Your task to perform on an android device: Search for logitech g933 on ebay.com, select the first entry, add it to the cart, then select checkout. Image 0: 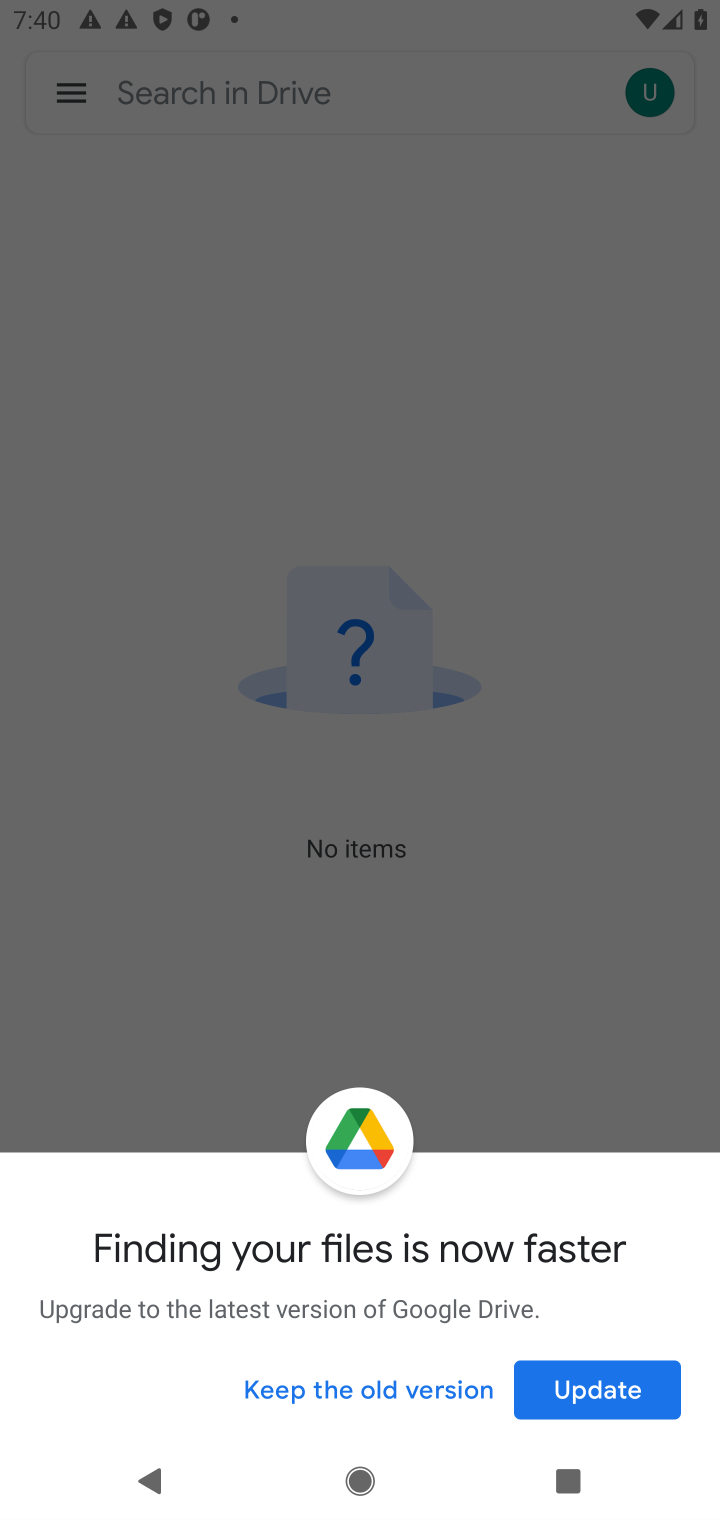
Step 0: press home button
Your task to perform on an android device: Search for logitech g933 on ebay.com, select the first entry, add it to the cart, then select checkout. Image 1: 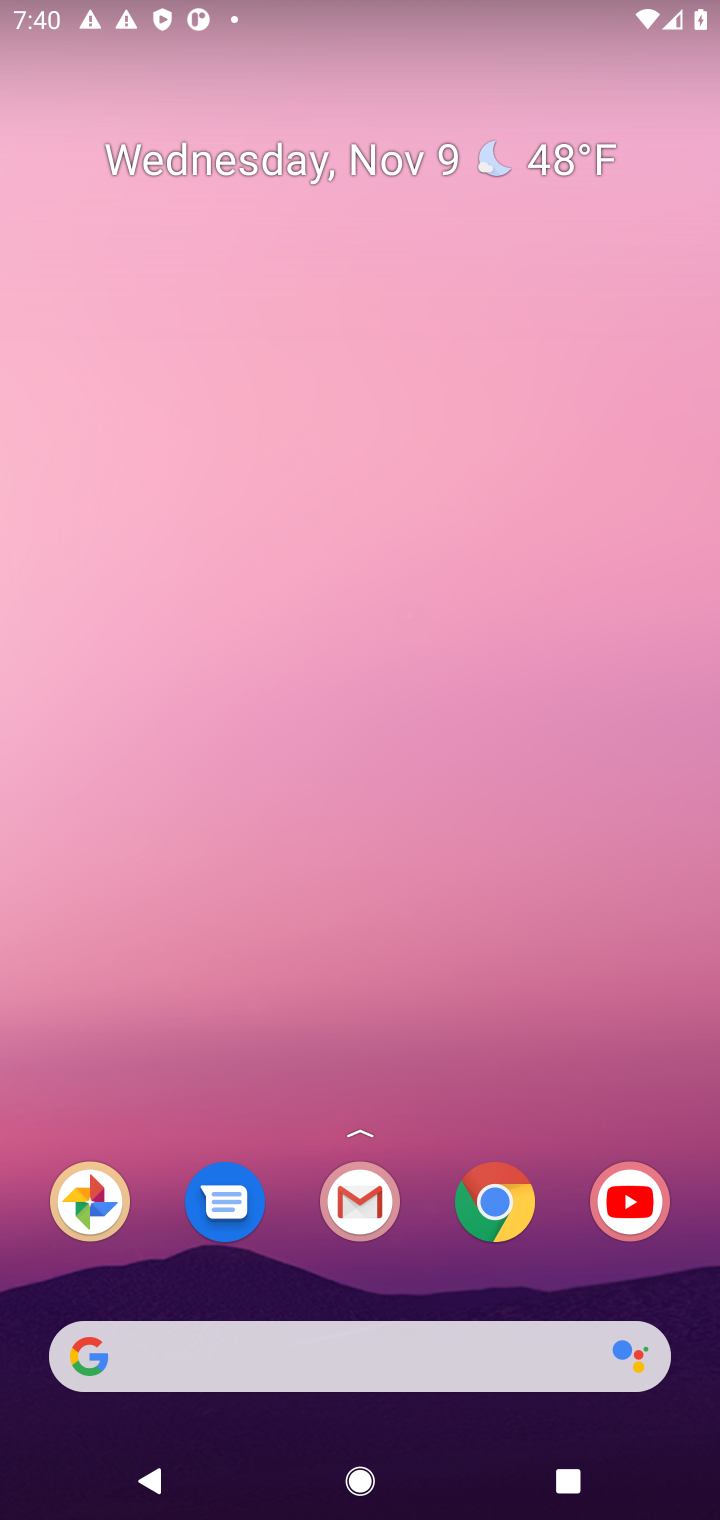
Step 1: drag from (383, 1238) to (636, 160)
Your task to perform on an android device: Search for logitech g933 on ebay.com, select the first entry, add it to the cart, then select checkout. Image 2: 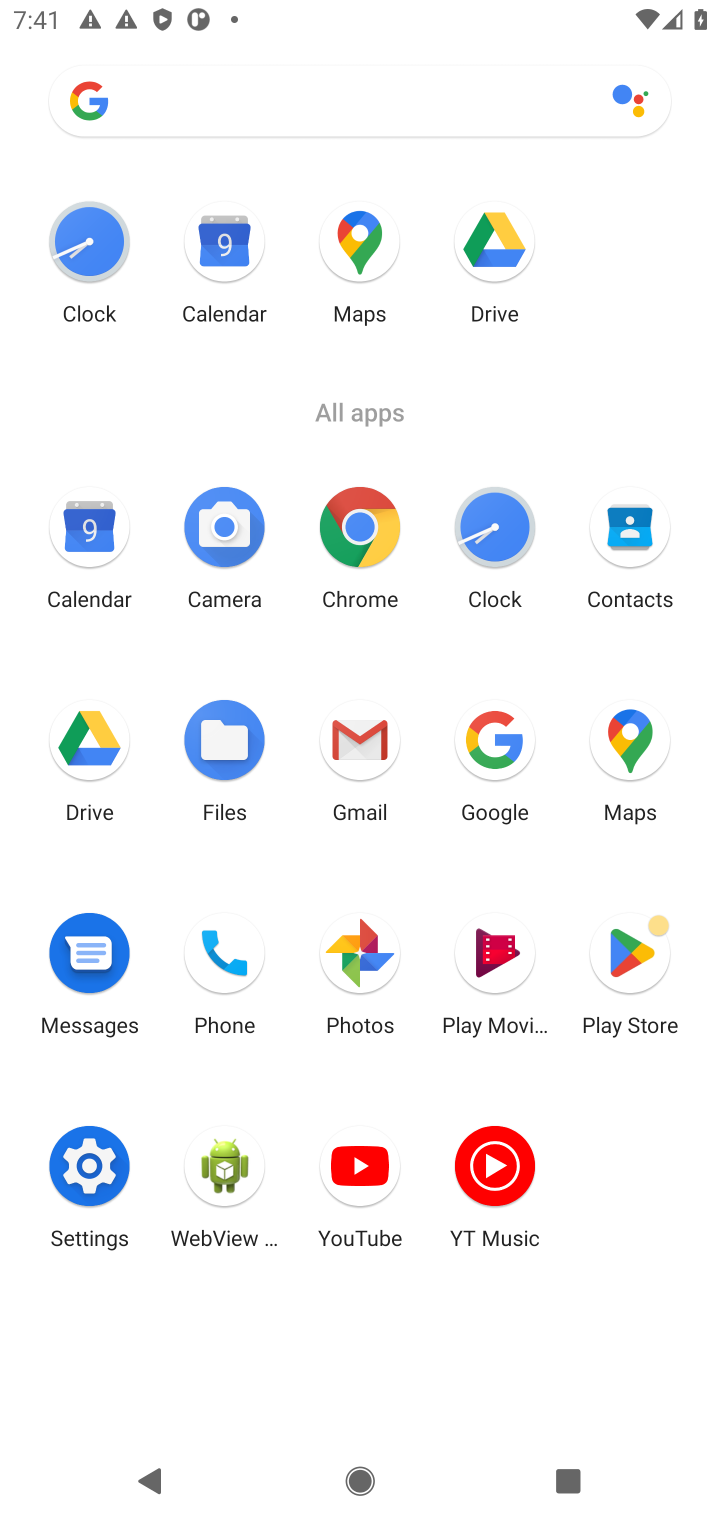
Step 2: drag from (500, 741) to (264, 885)
Your task to perform on an android device: Search for logitech g933 on ebay.com, select the first entry, add it to the cart, then select checkout. Image 3: 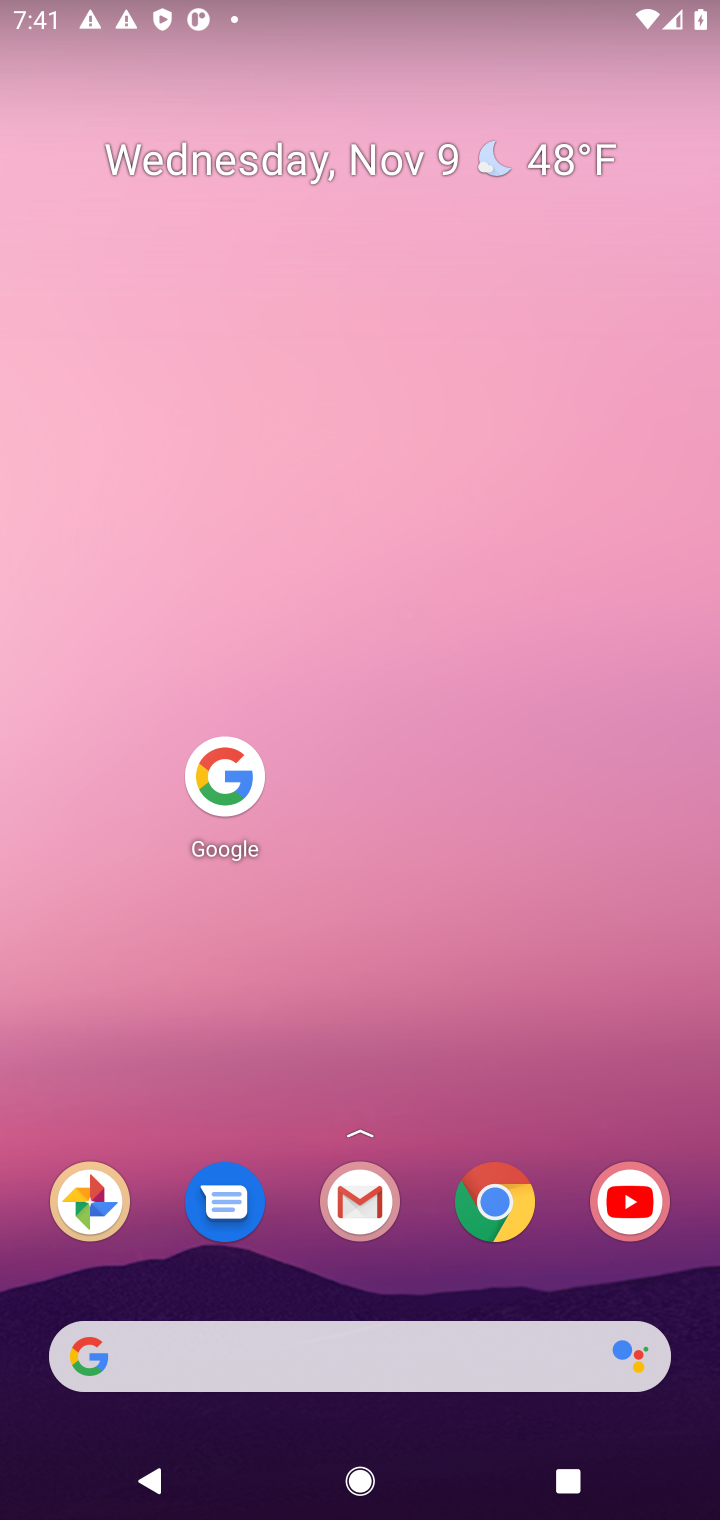
Step 3: click (230, 782)
Your task to perform on an android device: Search for logitech g933 on ebay.com, select the first entry, add it to the cart, then select checkout. Image 4: 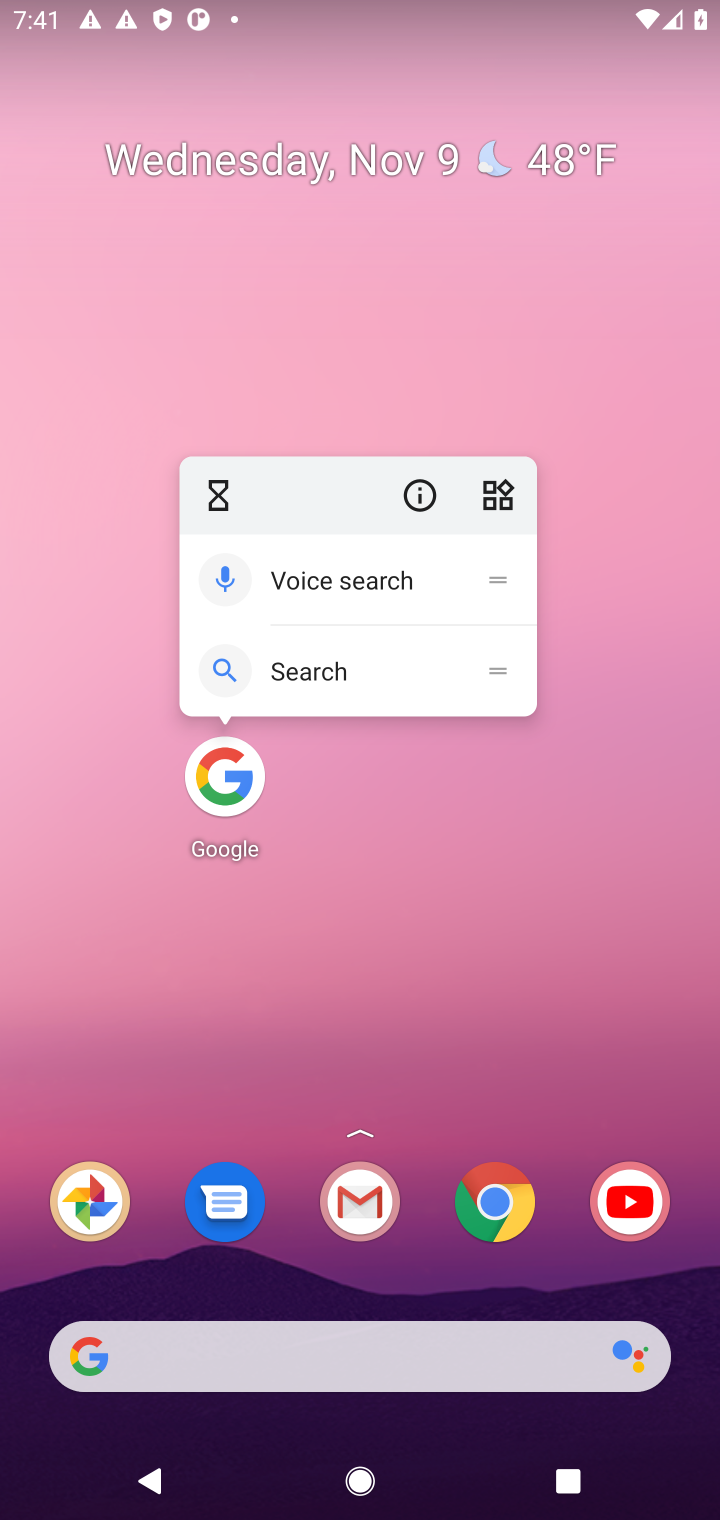
Step 4: click (230, 782)
Your task to perform on an android device: Search for logitech g933 on ebay.com, select the first entry, add it to the cart, then select checkout. Image 5: 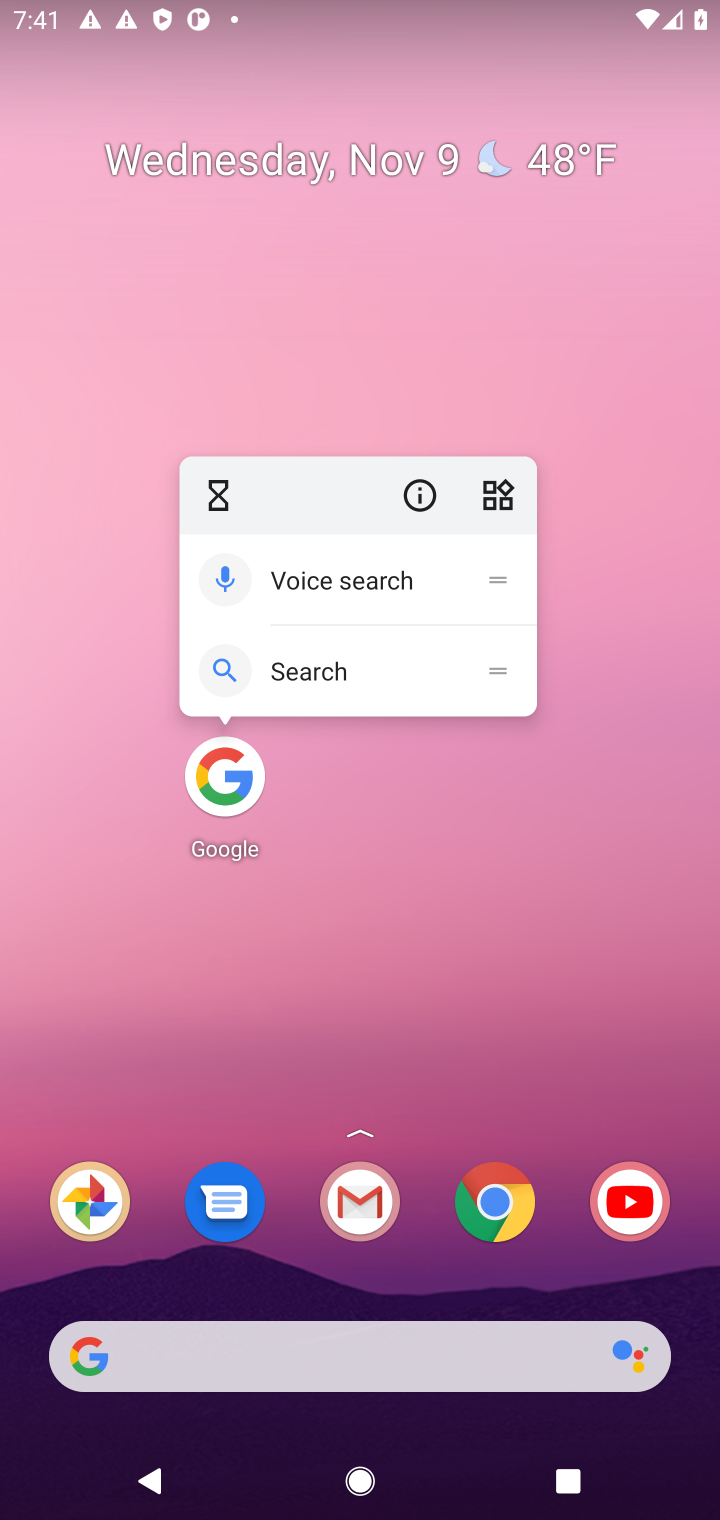
Step 5: click (230, 778)
Your task to perform on an android device: Search for logitech g933 on ebay.com, select the first entry, add it to the cart, then select checkout. Image 6: 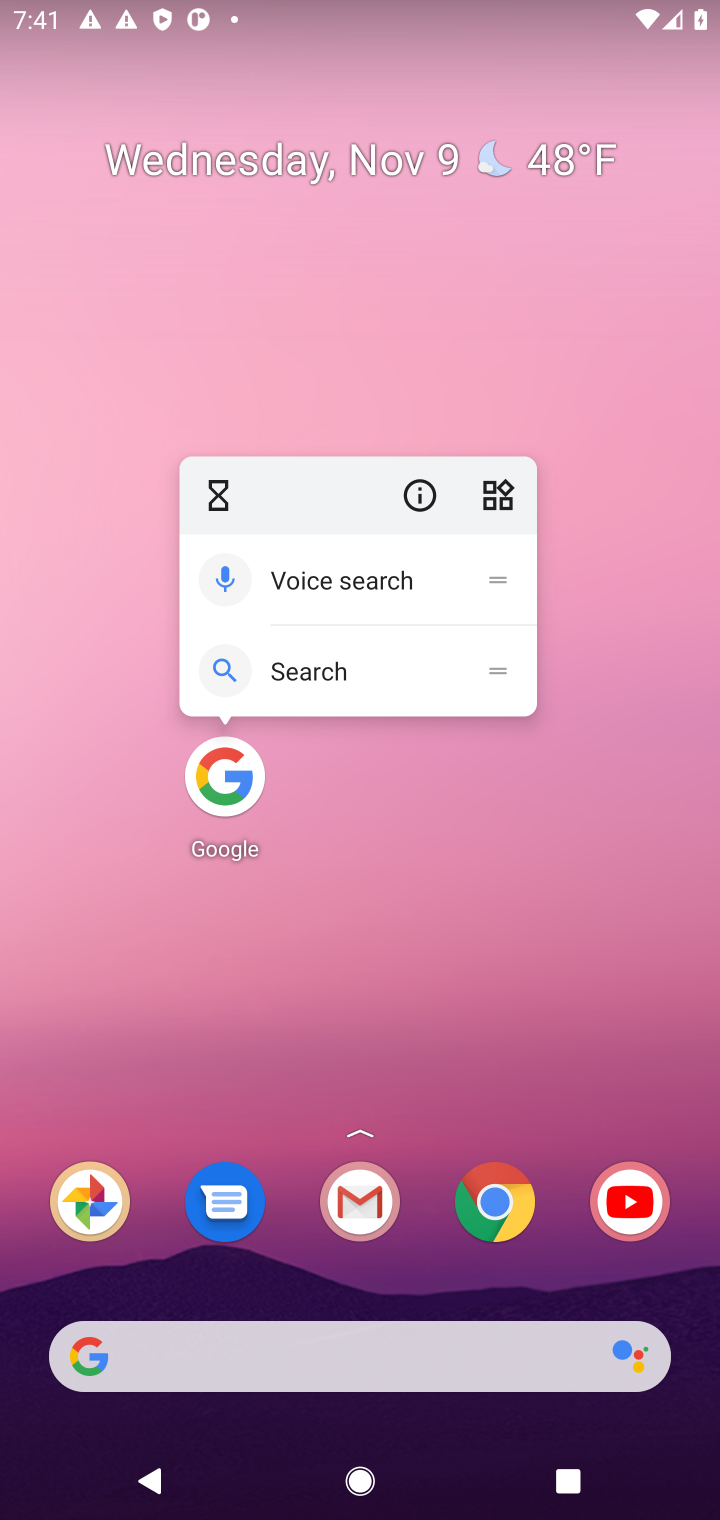
Step 6: click (216, 777)
Your task to perform on an android device: Search for logitech g933 on ebay.com, select the first entry, add it to the cart, then select checkout. Image 7: 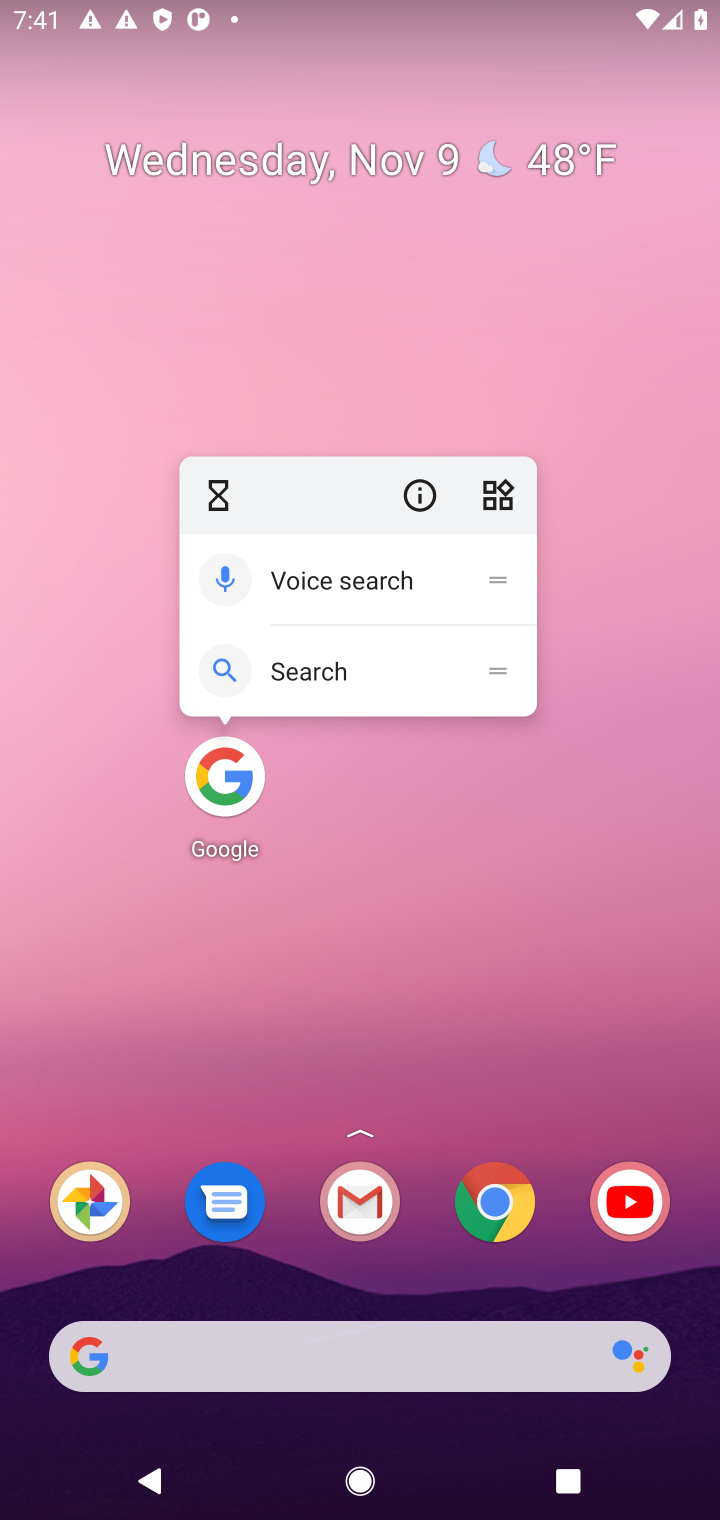
Step 7: click (222, 774)
Your task to perform on an android device: Search for logitech g933 on ebay.com, select the first entry, add it to the cart, then select checkout. Image 8: 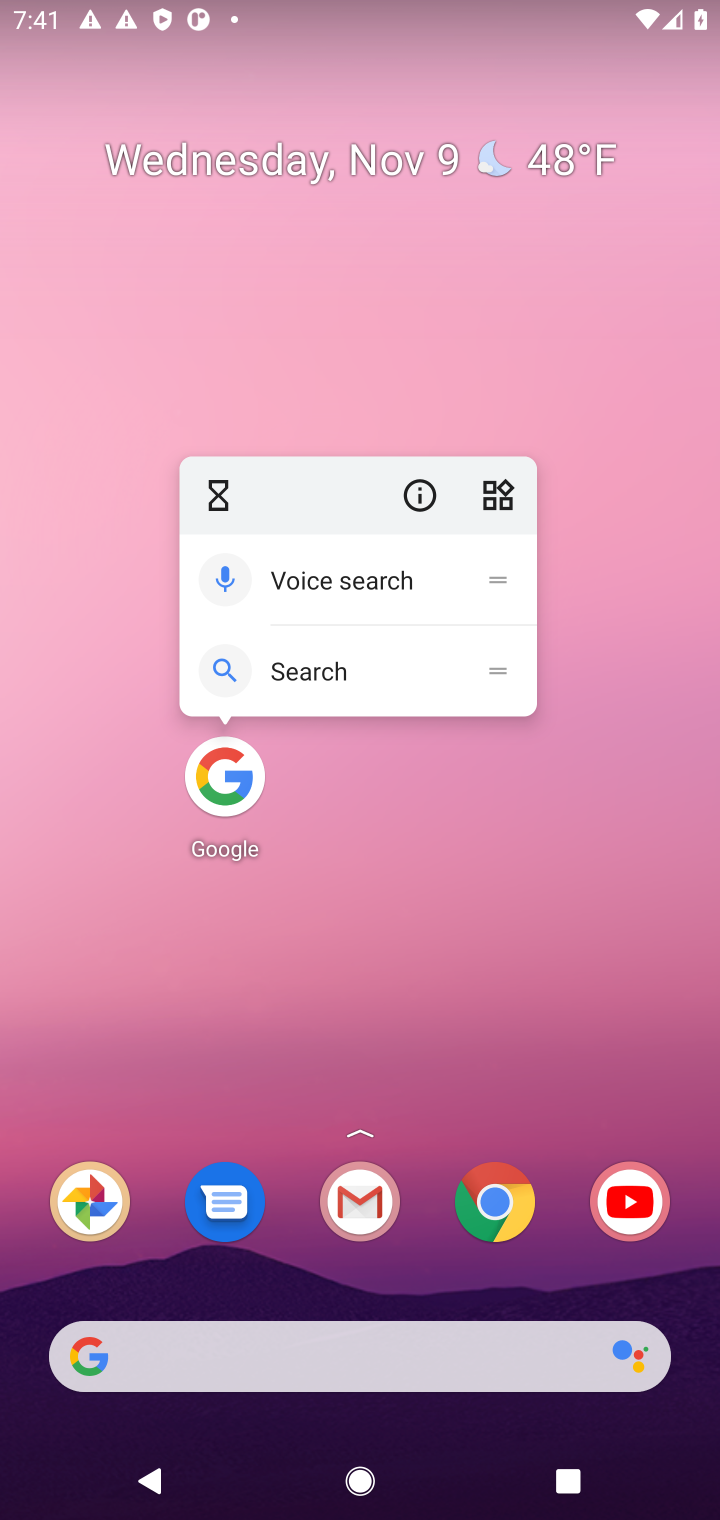
Step 8: click (222, 776)
Your task to perform on an android device: Search for logitech g933 on ebay.com, select the first entry, add it to the cart, then select checkout. Image 9: 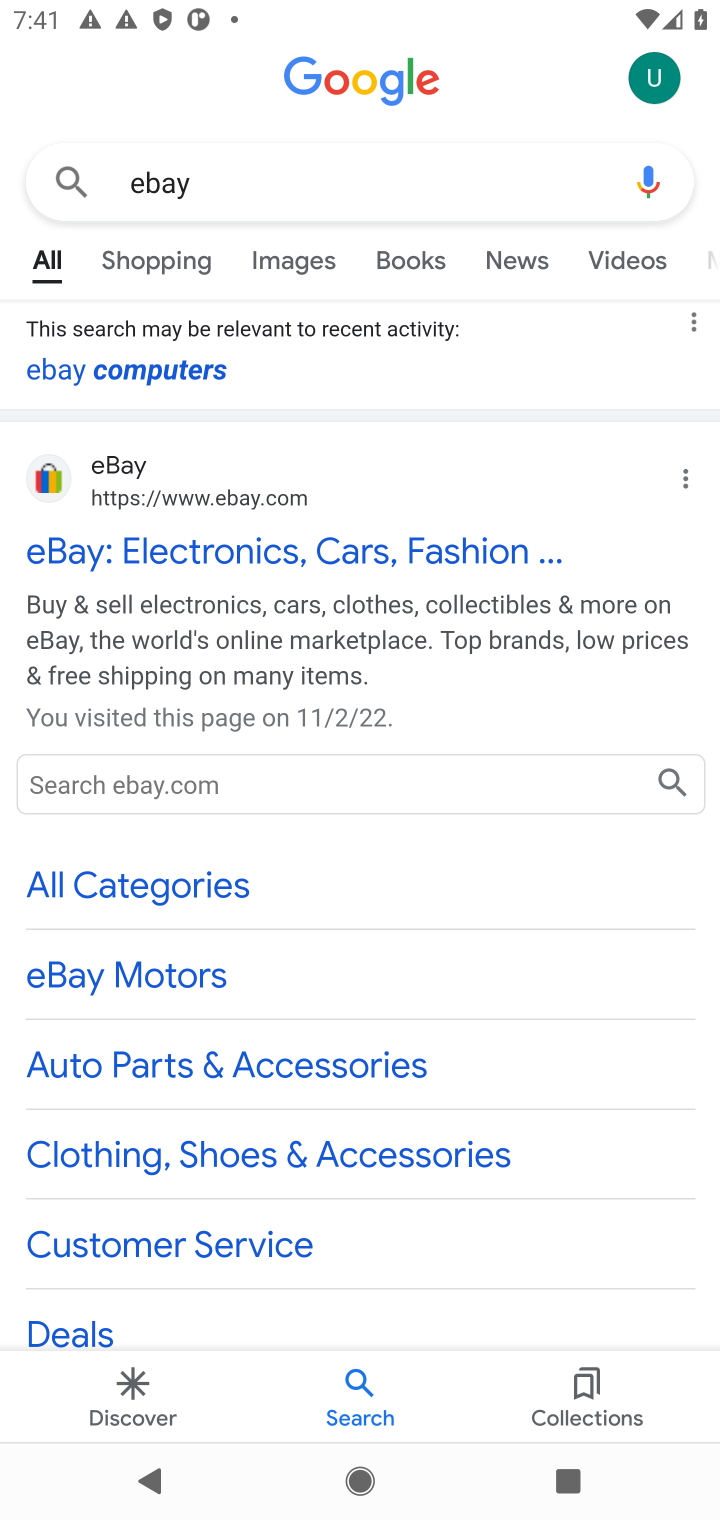
Step 9: click (192, 553)
Your task to perform on an android device: Search for logitech g933 on ebay.com, select the first entry, add it to the cart, then select checkout. Image 10: 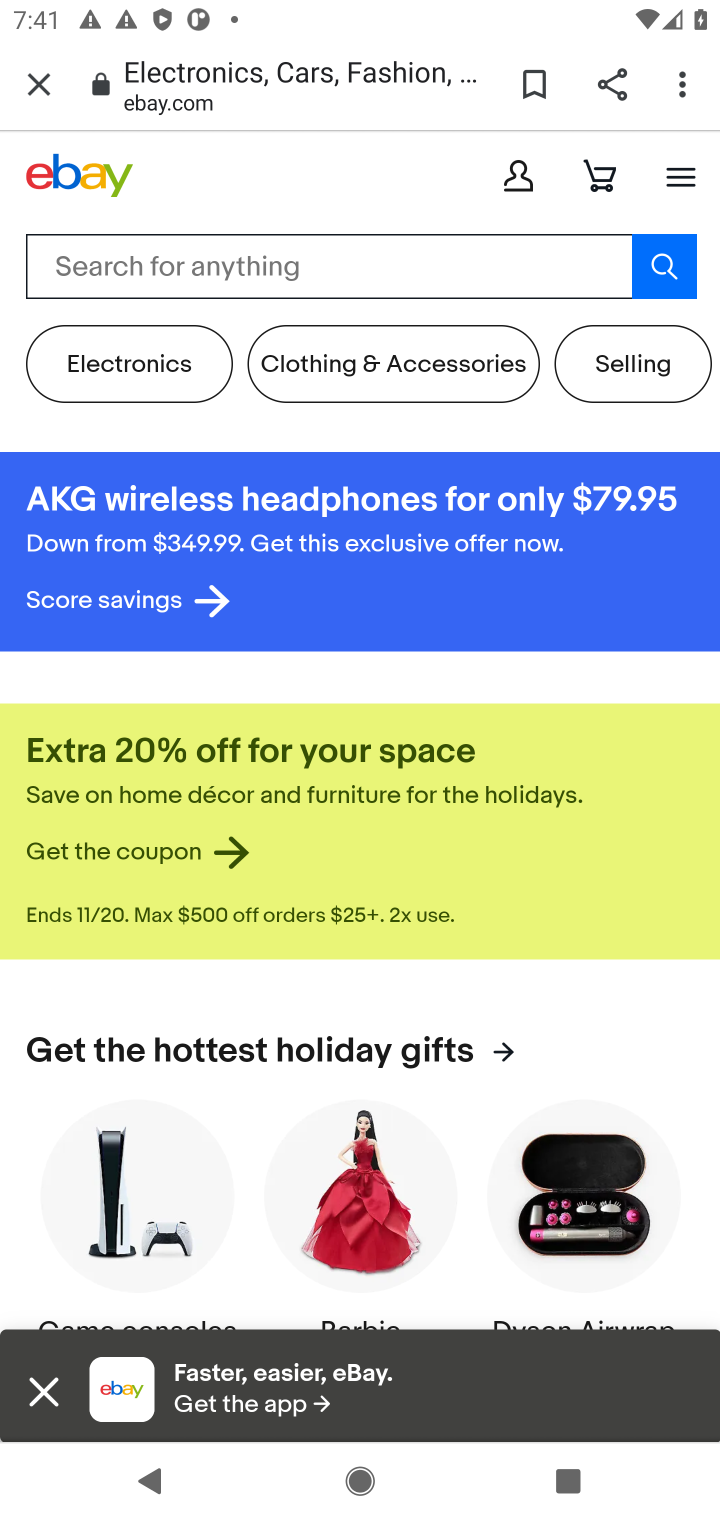
Step 10: click (244, 263)
Your task to perform on an android device: Search for logitech g933 on ebay.com, select the first entry, add it to the cart, then select checkout. Image 11: 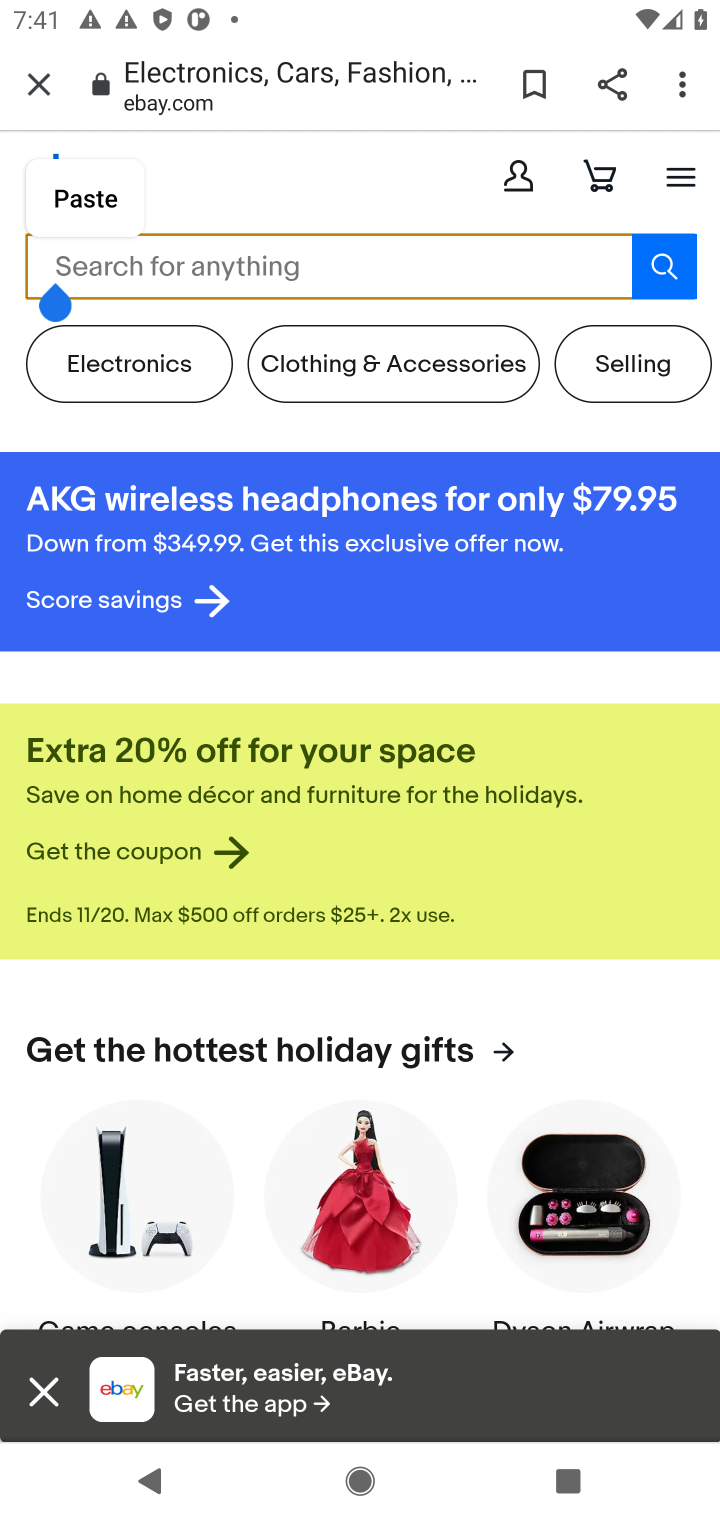
Step 11: type "logitech g933"
Your task to perform on an android device: Search for logitech g933 on ebay.com, select the first entry, add it to the cart, then select checkout. Image 12: 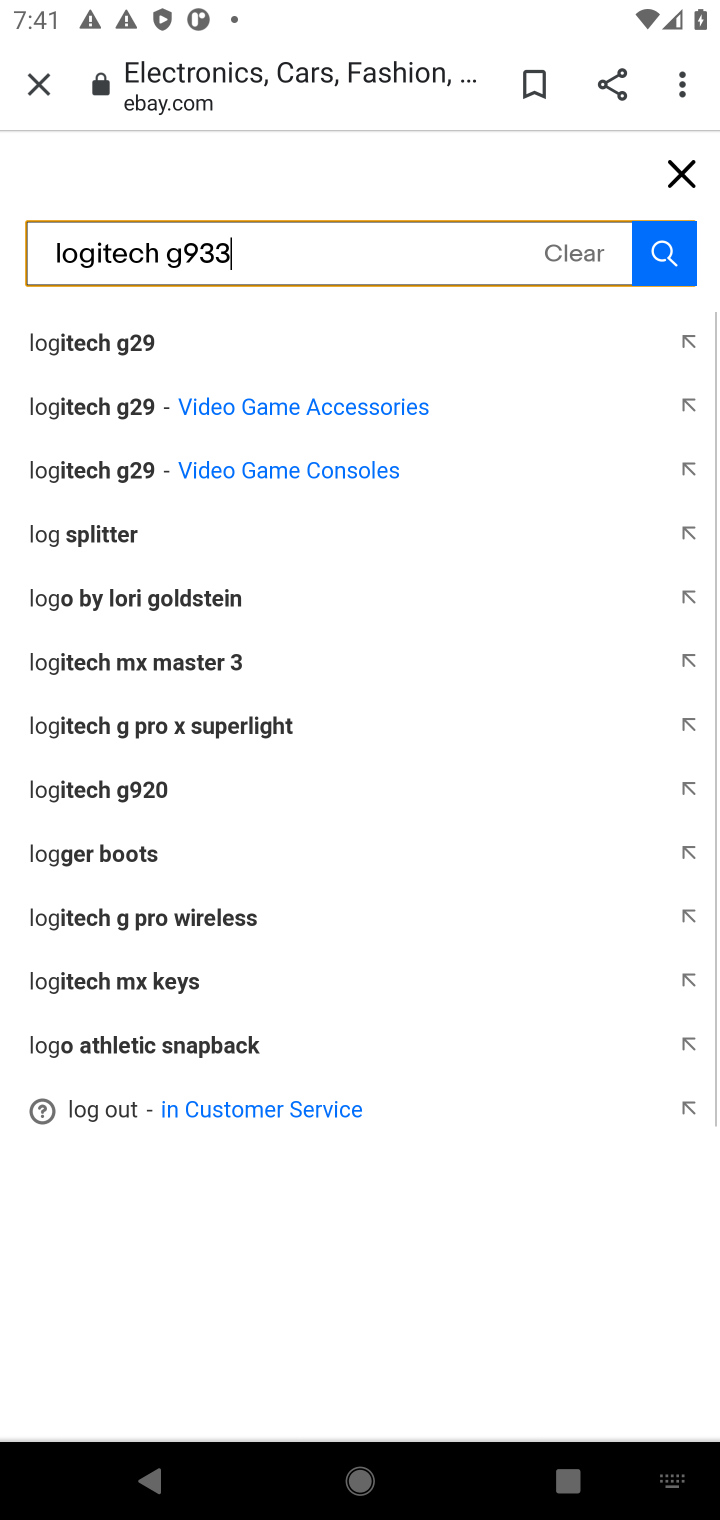
Step 12: press enter
Your task to perform on an android device: Search for logitech g933 on ebay.com, select the first entry, add it to the cart, then select checkout. Image 13: 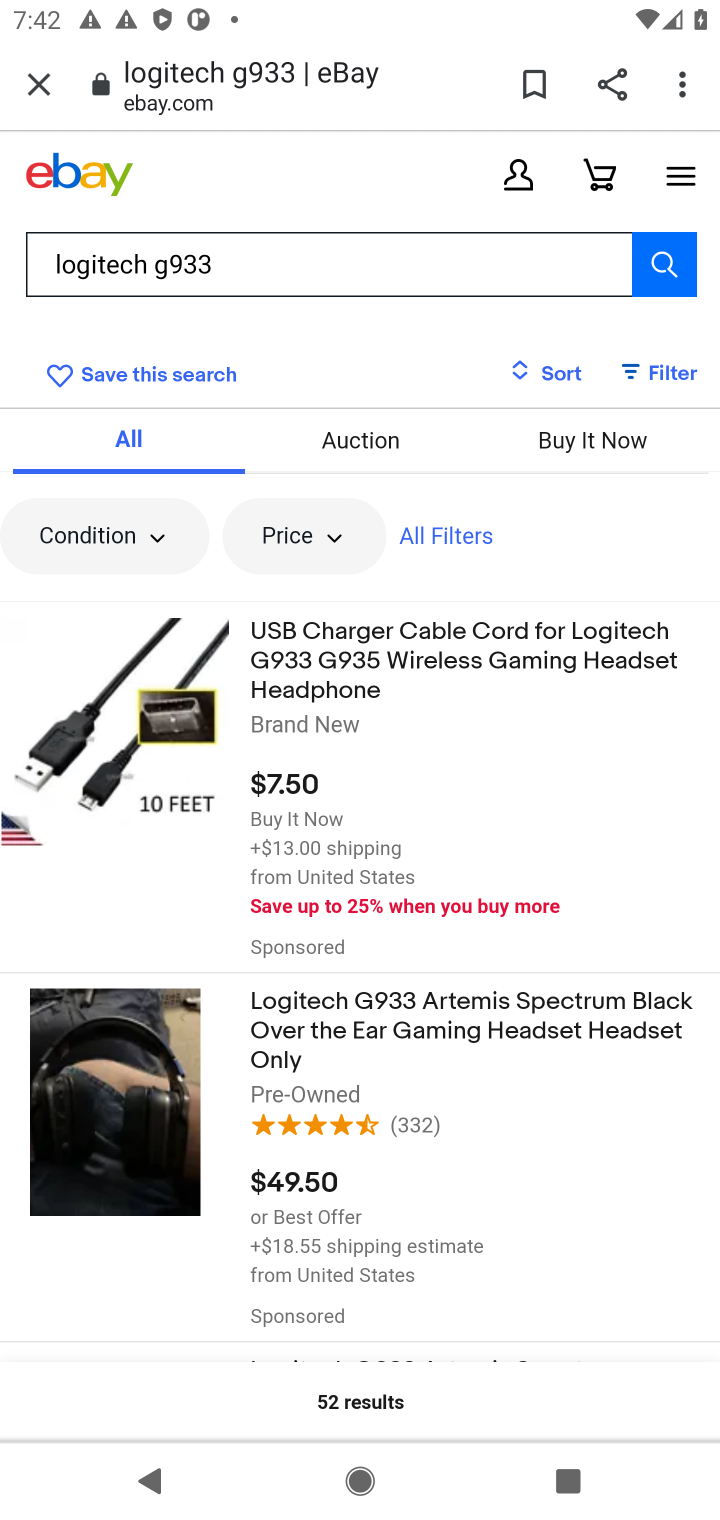
Step 13: click (419, 705)
Your task to perform on an android device: Search for logitech g933 on ebay.com, select the first entry, add it to the cart, then select checkout. Image 14: 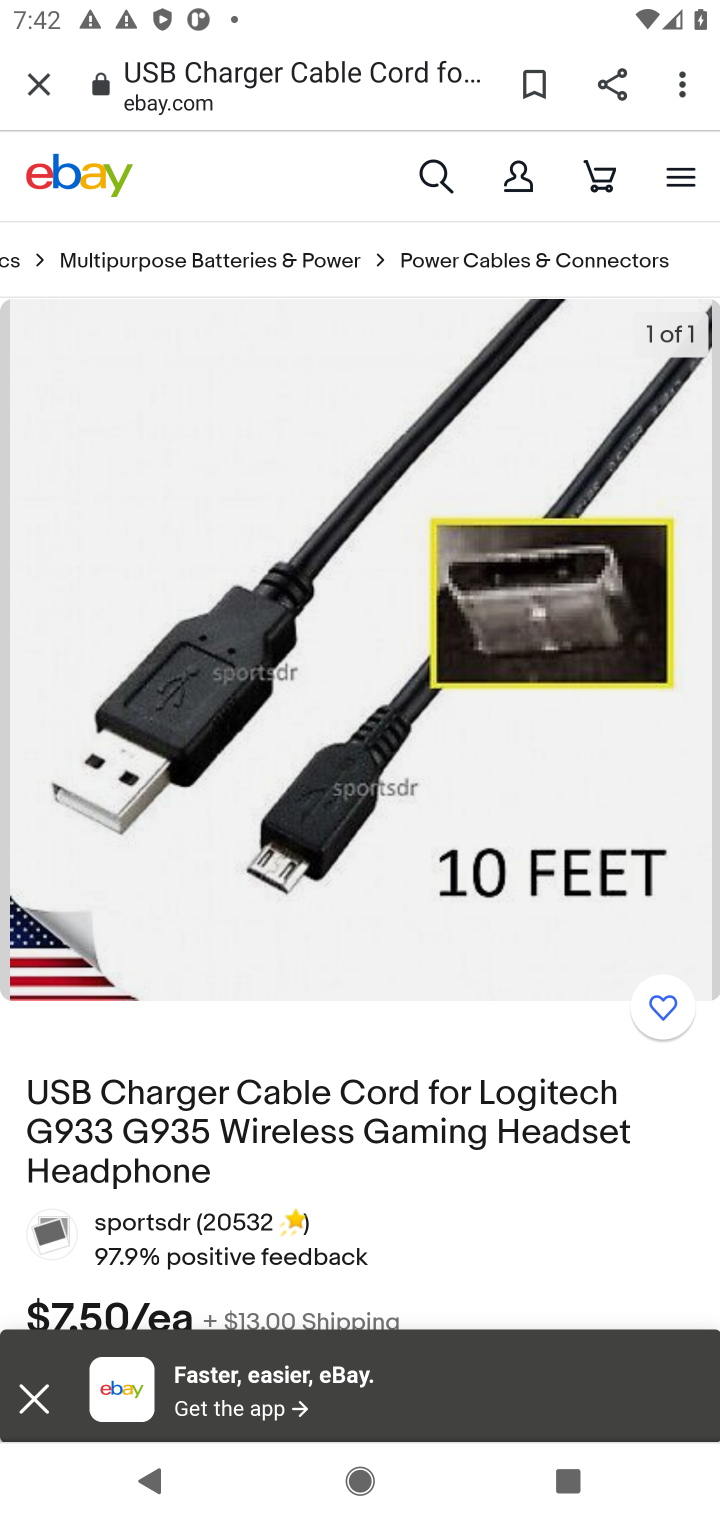
Step 14: drag from (362, 1246) to (714, 256)
Your task to perform on an android device: Search for logitech g933 on ebay.com, select the first entry, add it to the cart, then select checkout. Image 15: 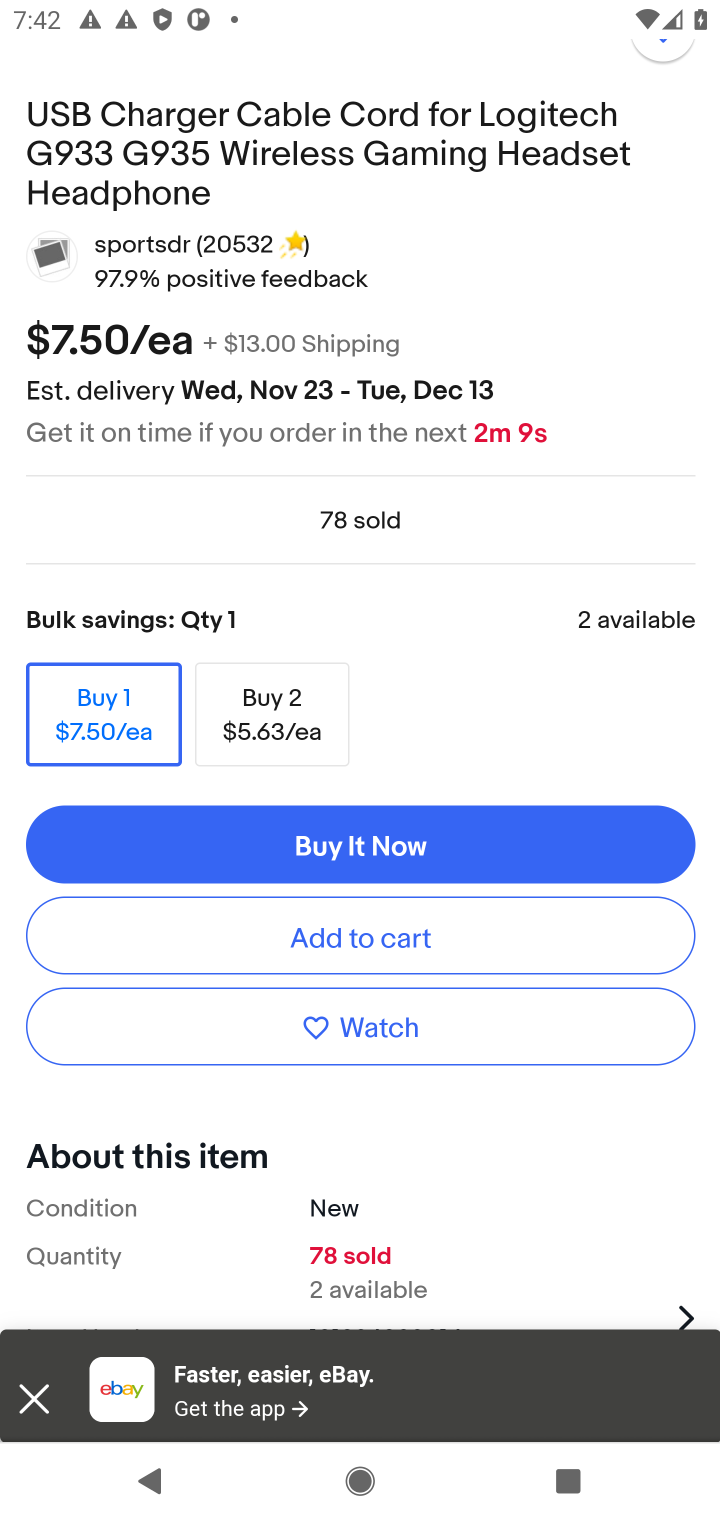
Step 15: click (384, 944)
Your task to perform on an android device: Search for logitech g933 on ebay.com, select the first entry, add it to the cart, then select checkout. Image 16: 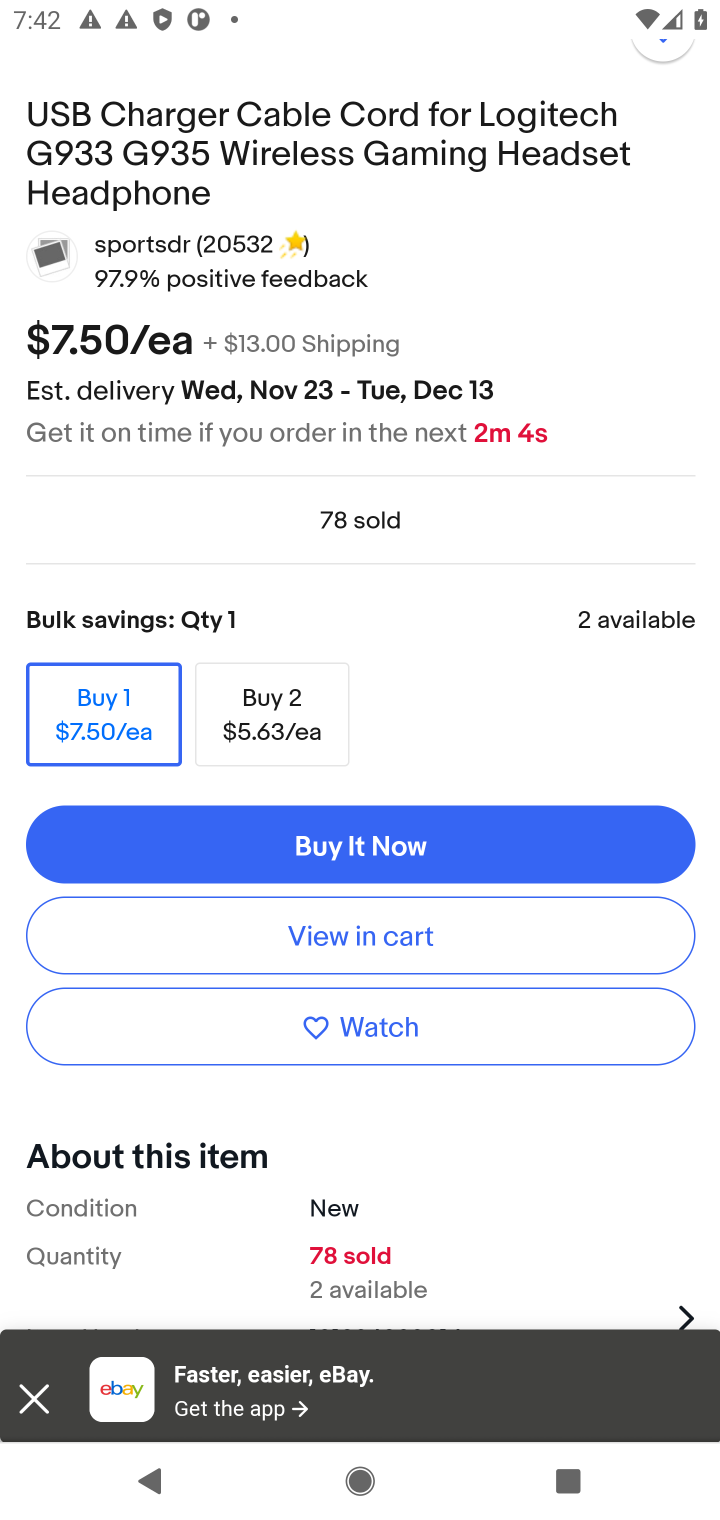
Step 16: click (387, 943)
Your task to perform on an android device: Search for logitech g933 on ebay.com, select the first entry, add it to the cart, then select checkout. Image 17: 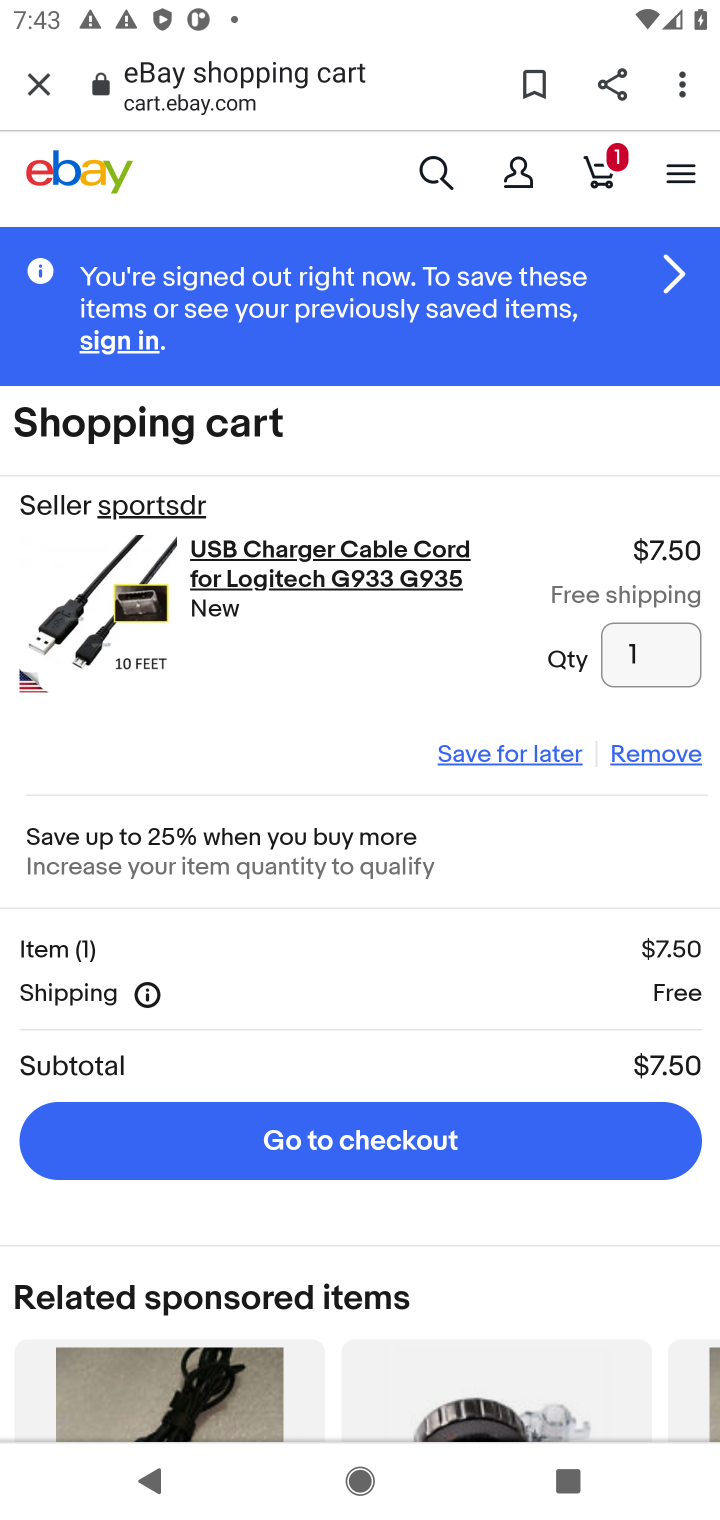
Step 17: click (310, 1139)
Your task to perform on an android device: Search for logitech g933 on ebay.com, select the first entry, add it to the cart, then select checkout. Image 18: 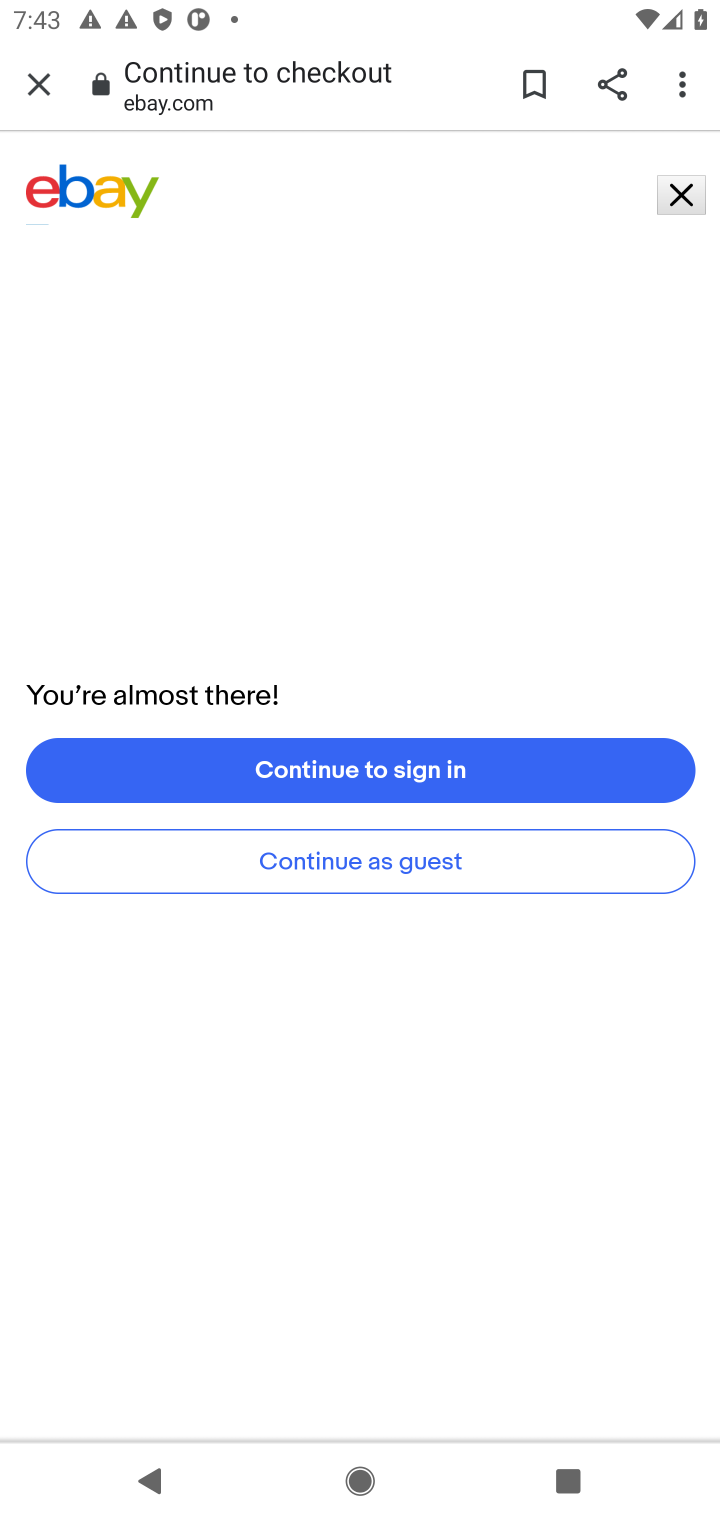
Step 18: task complete